Your task to perform on an android device: Go to network settings Image 0: 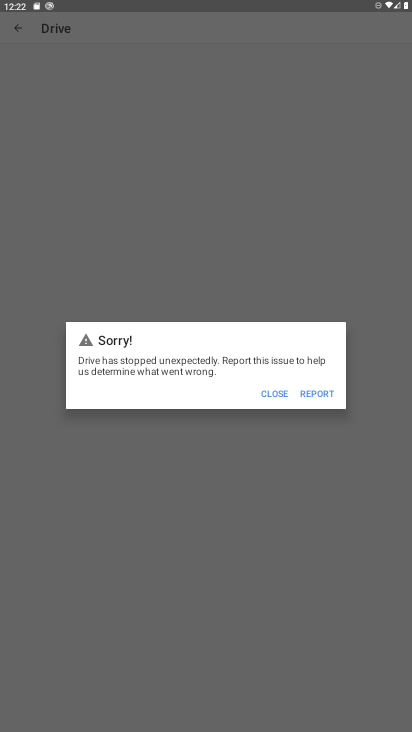
Step 0: press home button
Your task to perform on an android device: Go to network settings Image 1: 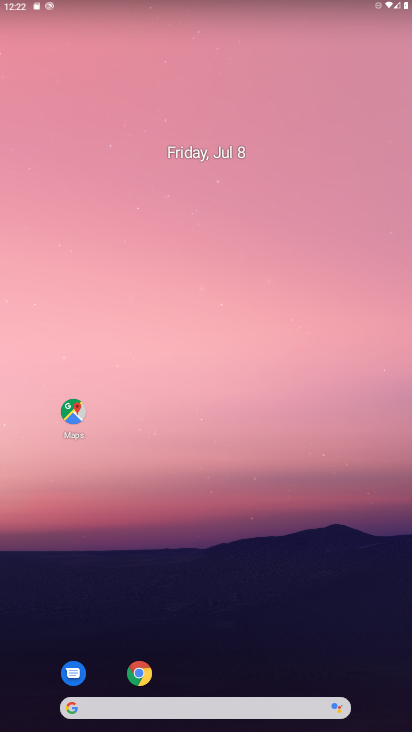
Step 1: drag from (377, 670) to (332, 100)
Your task to perform on an android device: Go to network settings Image 2: 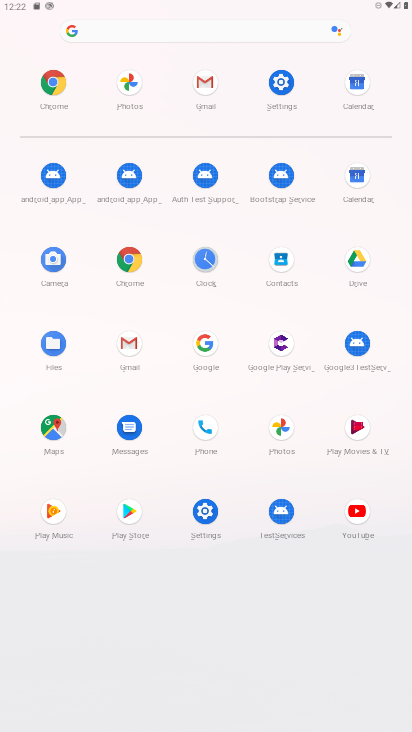
Step 2: click (286, 88)
Your task to perform on an android device: Go to network settings Image 3: 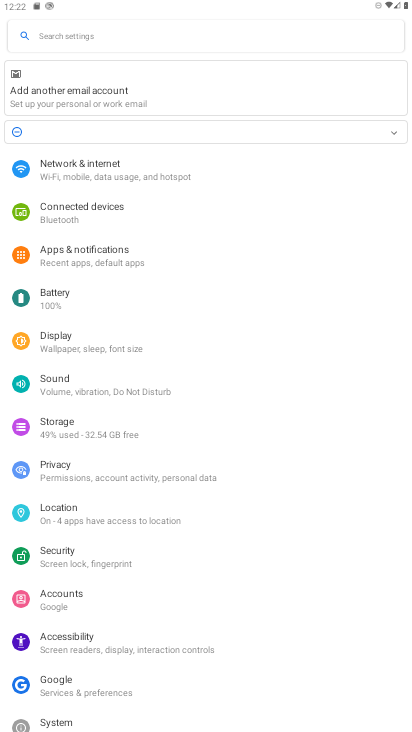
Step 3: click (80, 164)
Your task to perform on an android device: Go to network settings Image 4: 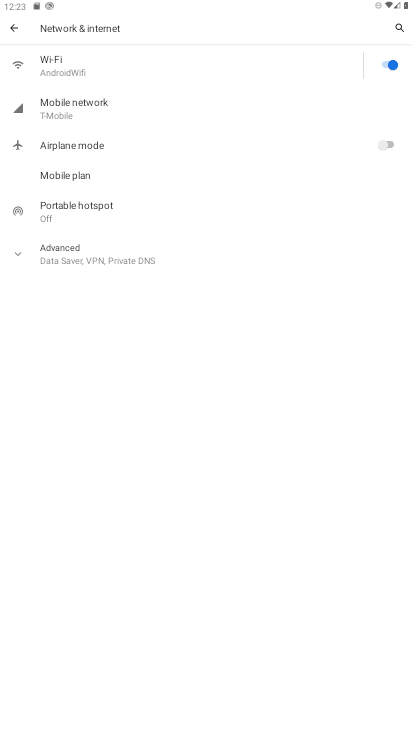
Step 4: click (63, 104)
Your task to perform on an android device: Go to network settings Image 5: 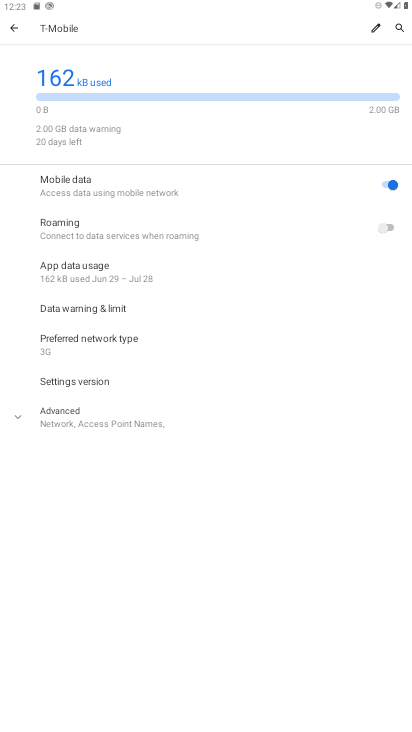
Step 5: task complete